Your task to perform on an android device: clear all cookies in the chrome app Image 0: 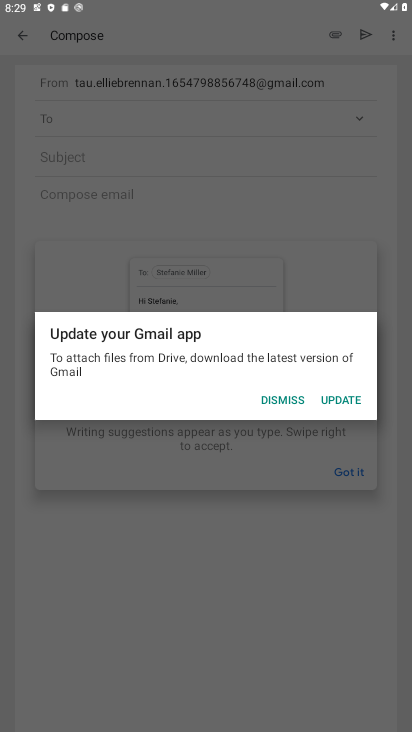
Step 0: press home button
Your task to perform on an android device: clear all cookies in the chrome app Image 1: 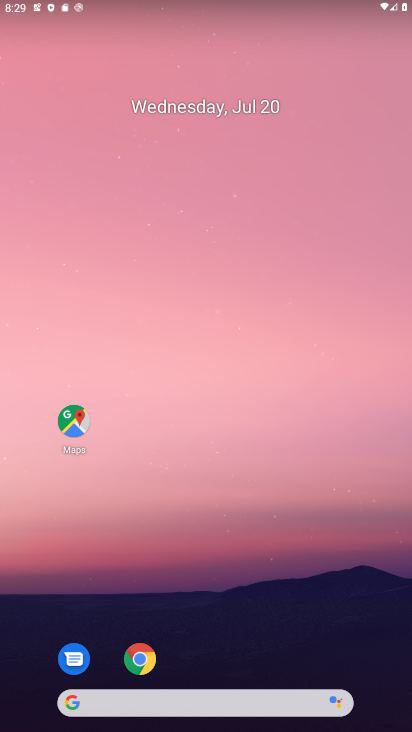
Step 1: drag from (291, 634) to (282, 183)
Your task to perform on an android device: clear all cookies in the chrome app Image 2: 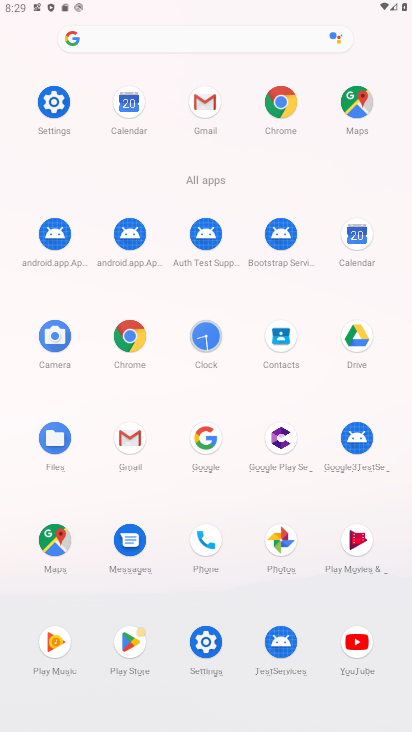
Step 2: click (114, 334)
Your task to perform on an android device: clear all cookies in the chrome app Image 3: 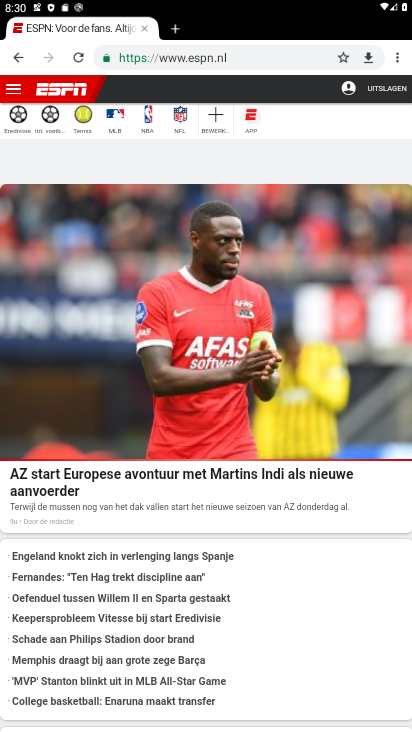
Step 3: drag from (399, 51) to (273, 381)
Your task to perform on an android device: clear all cookies in the chrome app Image 4: 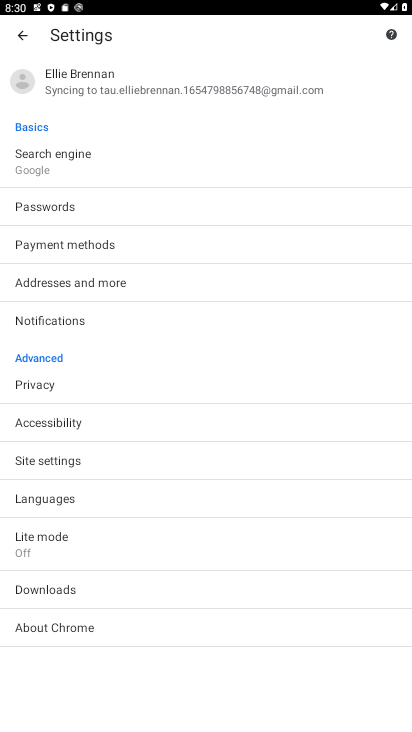
Step 4: click (27, 385)
Your task to perform on an android device: clear all cookies in the chrome app Image 5: 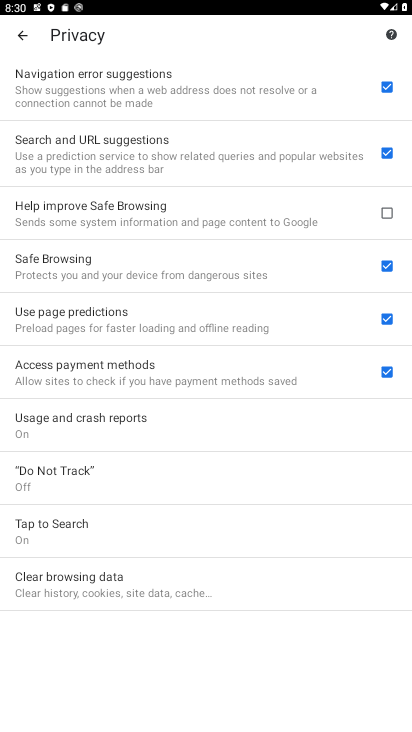
Step 5: click (99, 575)
Your task to perform on an android device: clear all cookies in the chrome app Image 6: 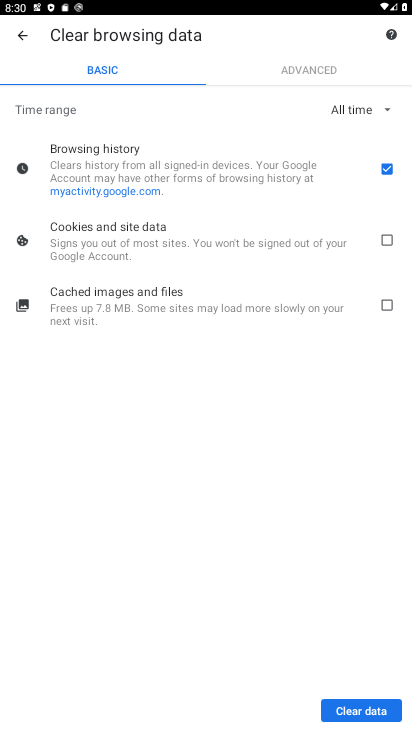
Step 6: click (289, 232)
Your task to perform on an android device: clear all cookies in the chrome app Image 7: 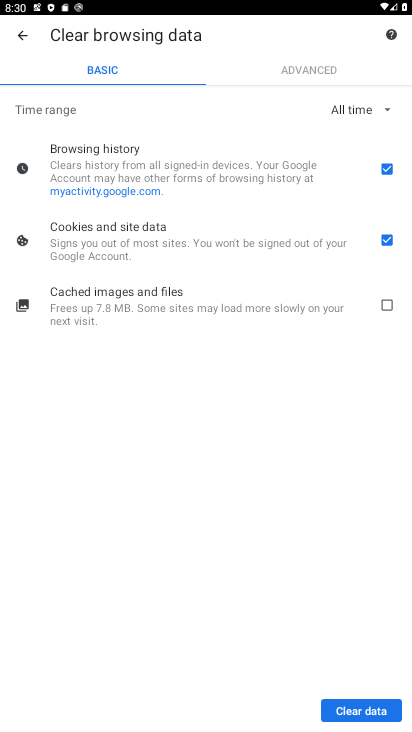
Step 7: click (352, 704)
Your task to perform on an android device: clear all cookies in the chrome app Image 8: 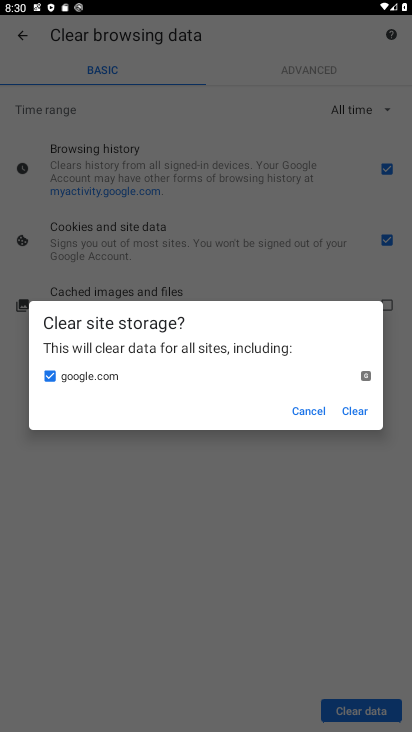
Step 8: click (347, 410)
Your task to perform on an android device: clear all cookies in the chrome app Image 9: 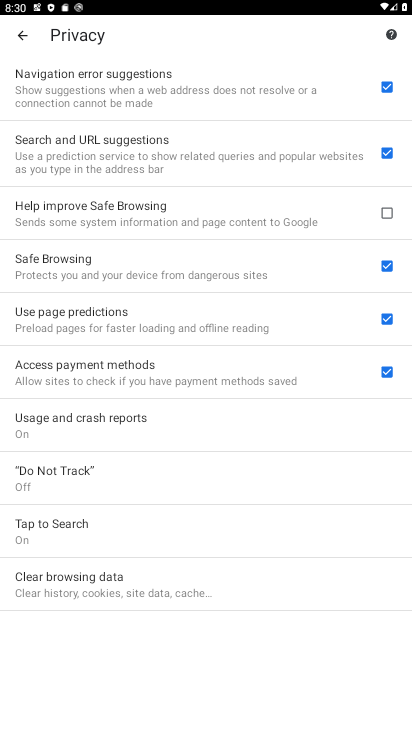
Step 9: task complete